Your task to perform on an android device: Go to display settings Image 0: 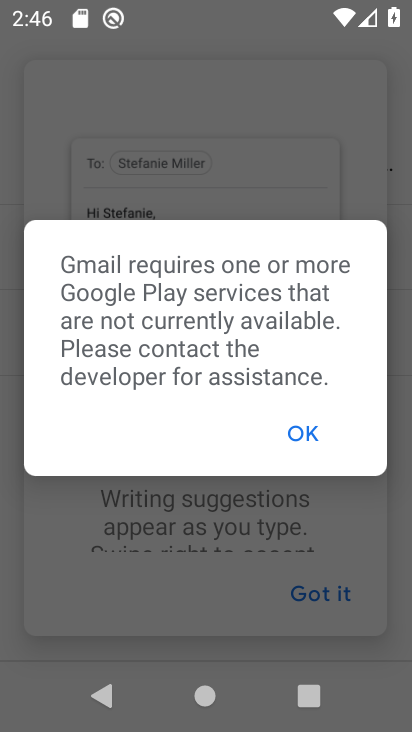
Step 0: click (309, 430)
Your task to perform on an android device: Go to display settings Image 1: 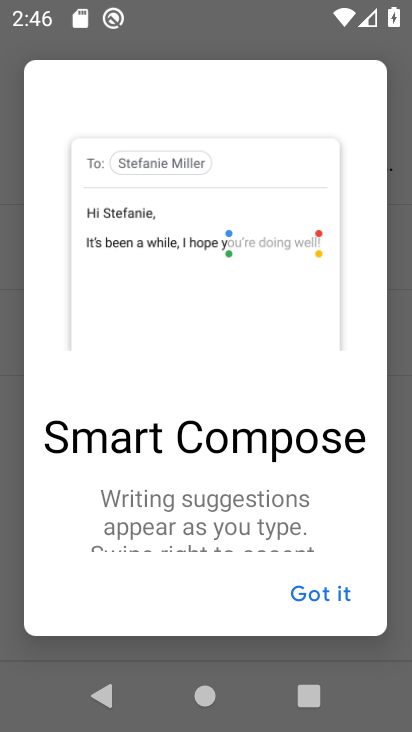
Step 1: press home button
Your task to perform on an android device: Go to display settings Image 2: 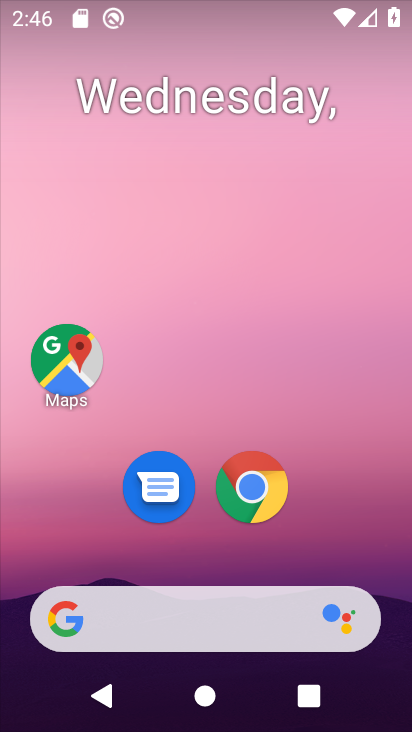
Step 2: drag from (258, 569) to (324, 77)
Your task to perform on an android device: Go to display settings Image 3: 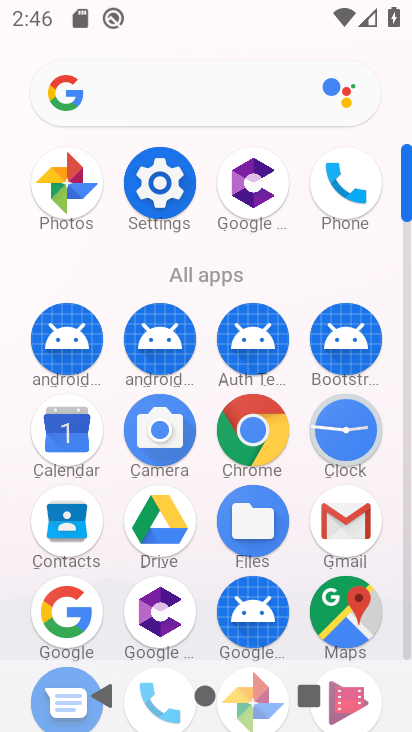
Step 3: click (172, 193)
Your task to perform on an android device: Go to display settings Image 4: 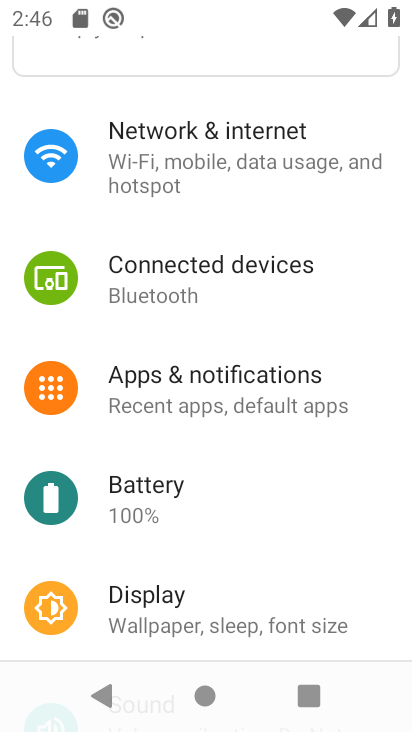
Step 4: click (171, 626)
Your task to perform on an android device: Go to display settings Image 5: 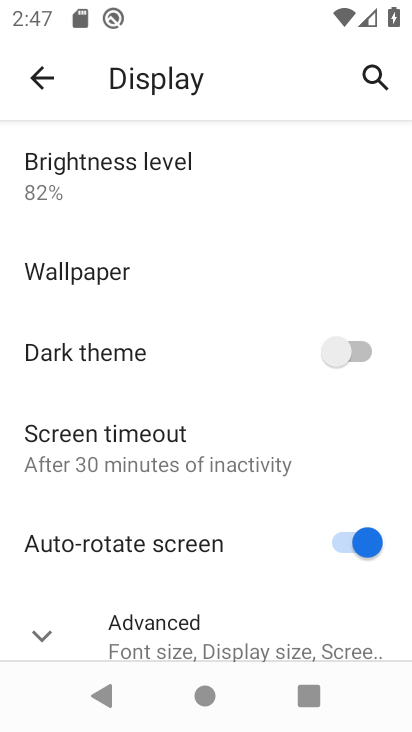
Step 5: task complete